Your task to perform on an android device: see creations saved in the google photos Image 0: 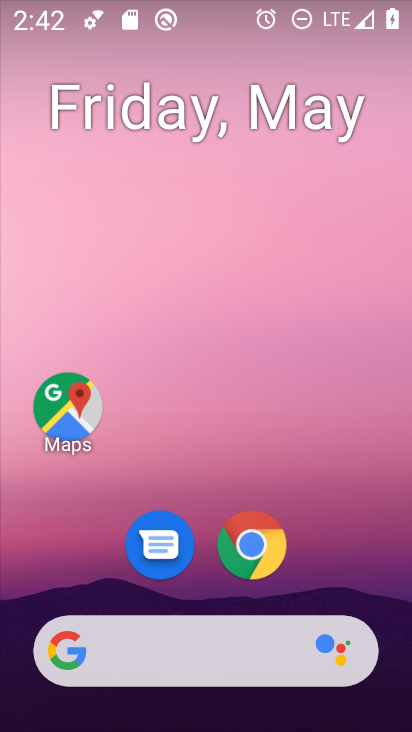
Step 0: drag from (306, 521) to (296, 252)
Your task to perform on an android device: see creations saved in the google photos Image 1: 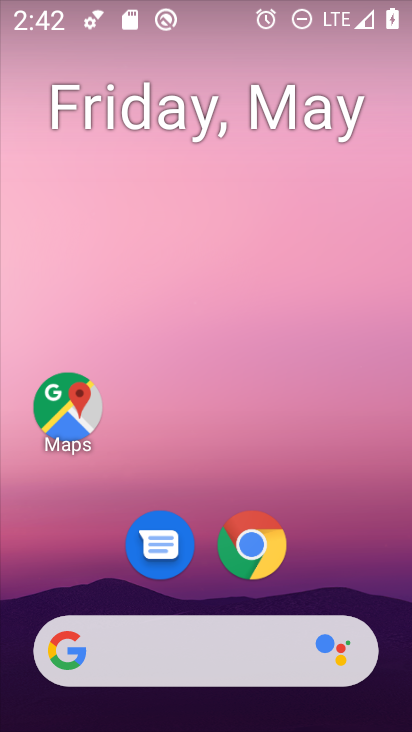
Step 1: drag from (325, 581) to (313, 206)
Your task to perform on an android device: see creations saved in the google photos Image 2: 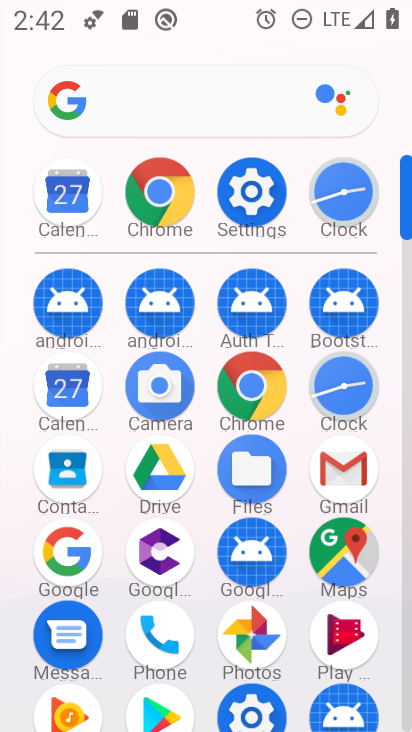
Step 2: click (246, 629)
Your task to perform on an android device: see creations saved in the google photos Image 3: 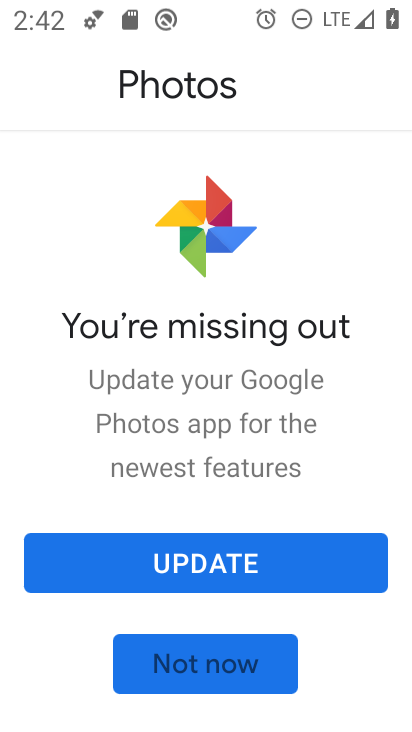
Step 3: click (238, 673)
Your task to perform on an android device: see creations saved in the google photos Image 4: 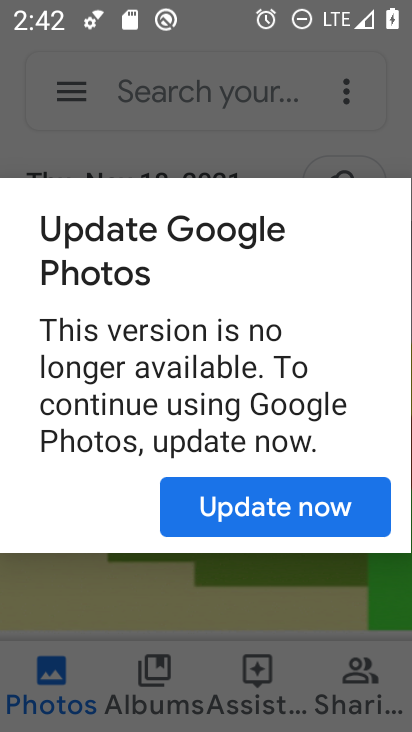
Step 4: click (246, 497)
Your task to perform on an android device: see creations saved in the google photos Image 5: 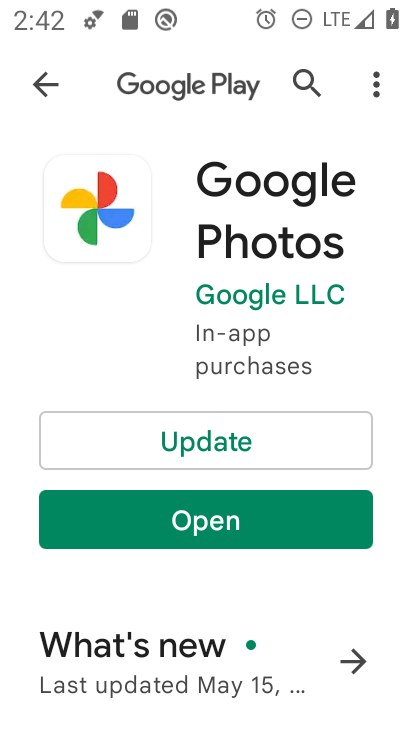
Step 5: press back button
Your task to perform on an android device: see creations saved in the google photos Image 6: 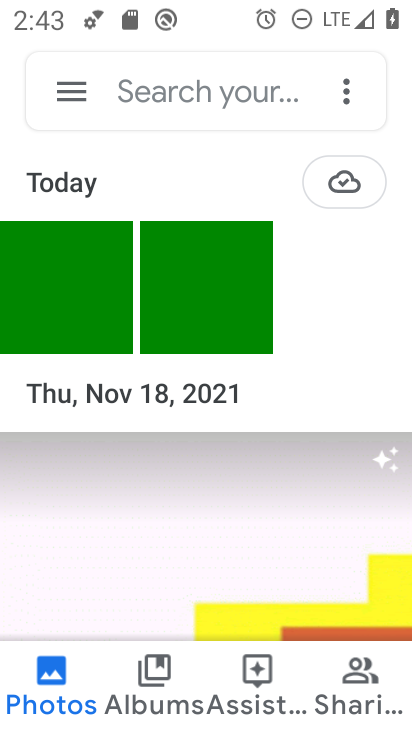
Step 6: click (164, 680)
Your task to perform on an android device: see creations saved in the google photos Image 7: 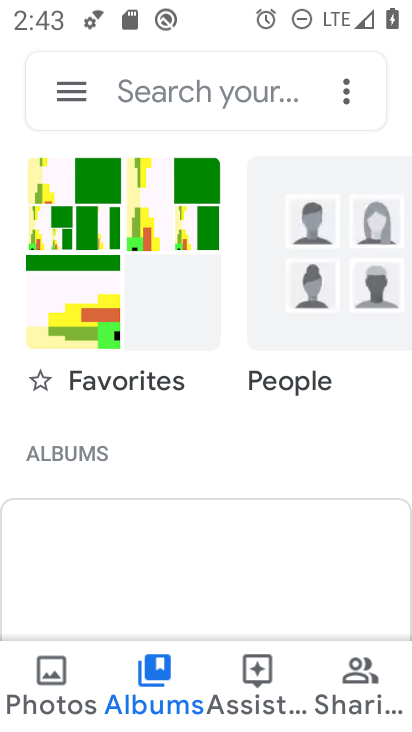
Step 7: click (50, 666)
Your task to perform on an android device: see creations saved in the google photos Image 8: 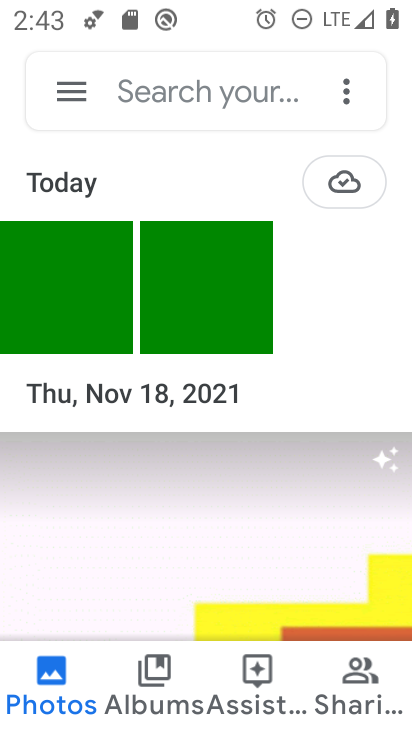
Step 8: task complete